Your task to perform on an android device: empty trash in the gmail app Image 0: 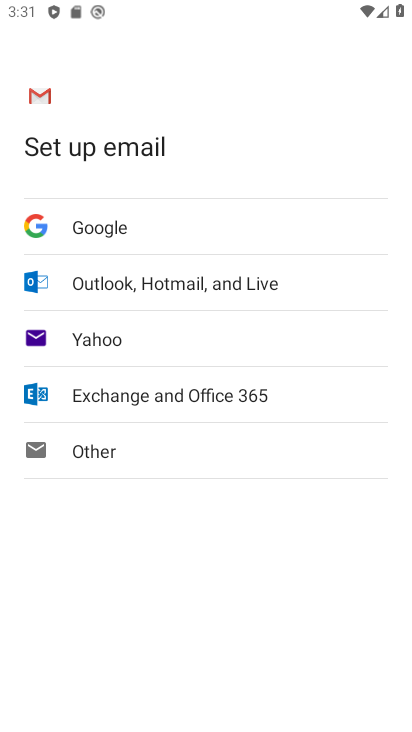
Step 0: press back button
Your task to perform on an android device: empty trash in the gmail app Image 1: 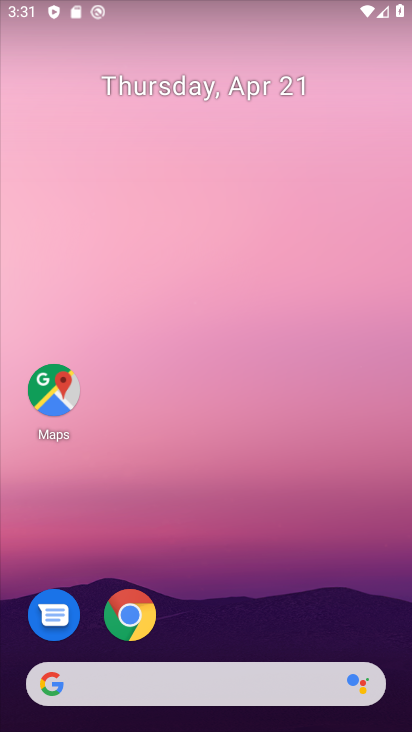
Step 1: drag from (198, 644) to (286, 323)
Your task to perform on an android device: empty trash in the gmail app Image 2: 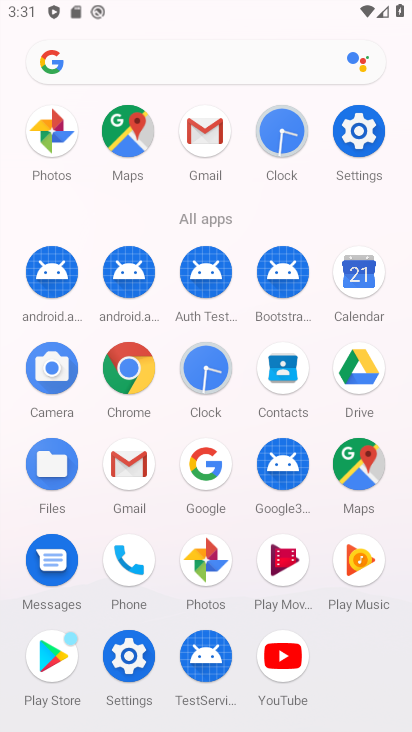
Step 2: click (141, 474)
Your task to perform on an android device: empty trash in the gmail app Image 3: 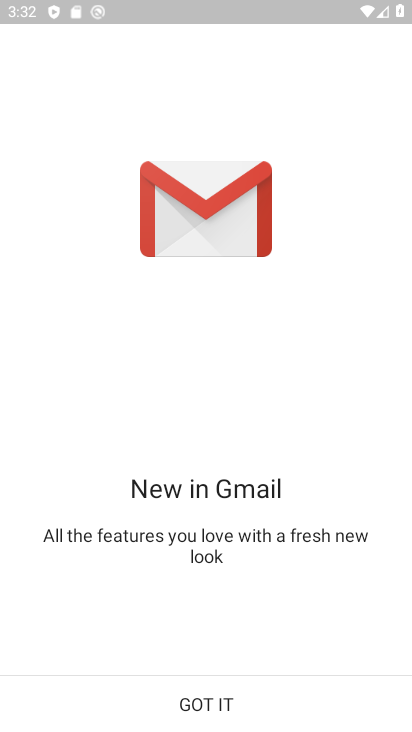
Step 3: click (248, 705)
Your task to perform on an android device: empty trash in the gmail app Image 4: 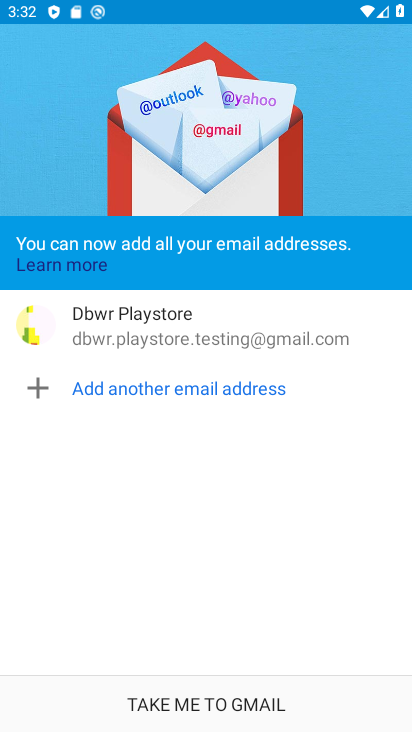
Step 4: click (213, 706)
Your task to perform on an android device: empty trash in the gmail app Image 5: 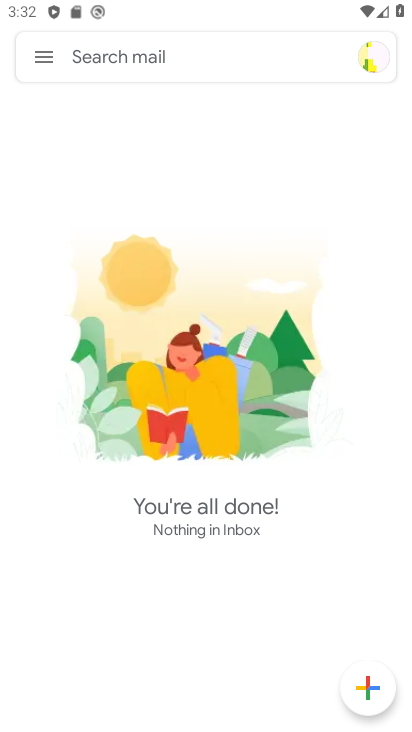
Step 5: click (38, 76)
Your task to perform on an android device: empty trash in the gmail app Image 6: 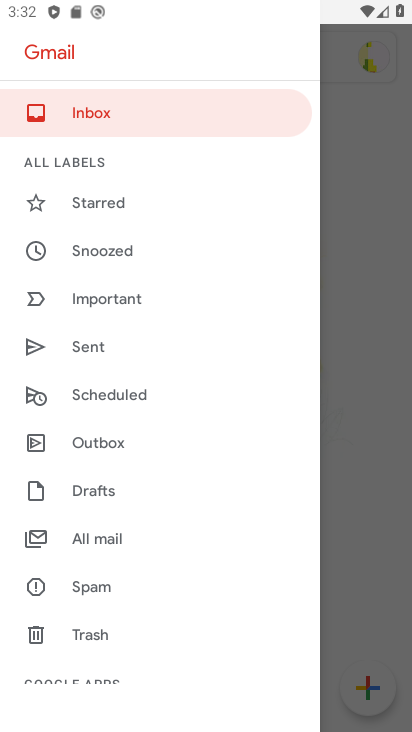
Step 6: click (92, 638)
Your task to perform on an android device: empty trash in the gmail app Image 7: 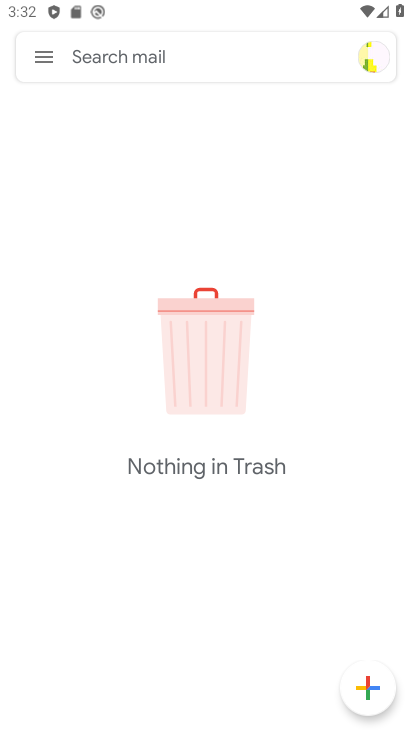
Step 7: task complete